Your task to perform on an android device: toggle airplane mode Image 0: 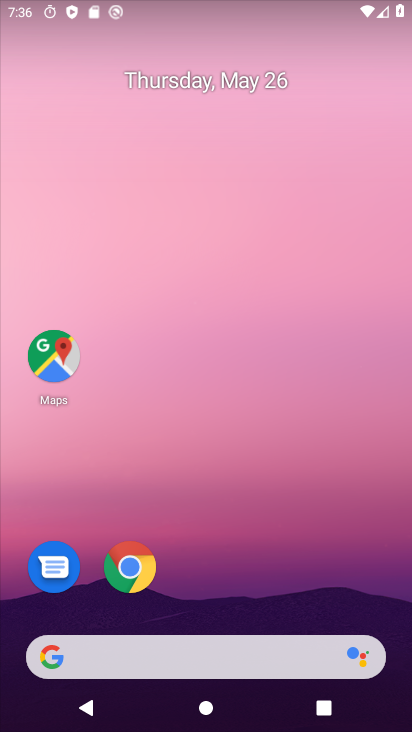
Step 0: press home button
Your task to perform on an android device: toggle airplane mode Image 1: 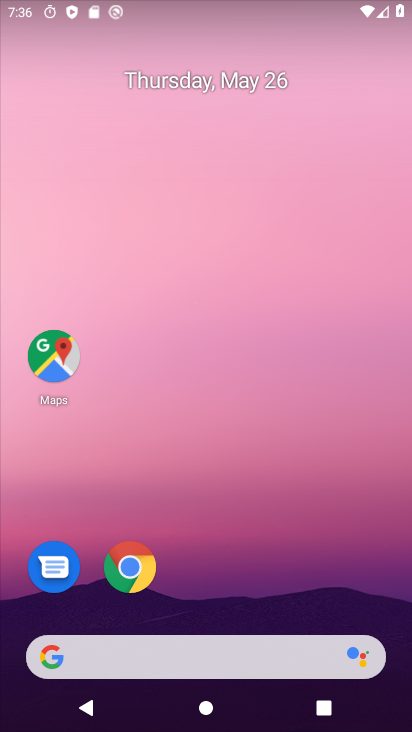
Step 1: drag from (139, 658) to (352, 72)
Your task to perform on an android device: toggle airplane mode Image 2: 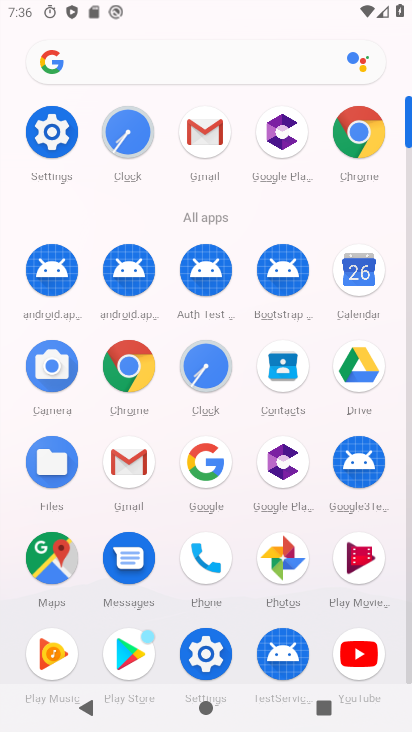
Step 2: click (39, 130)
Your task to perform on an android device: toggle airplane mode Image 3: 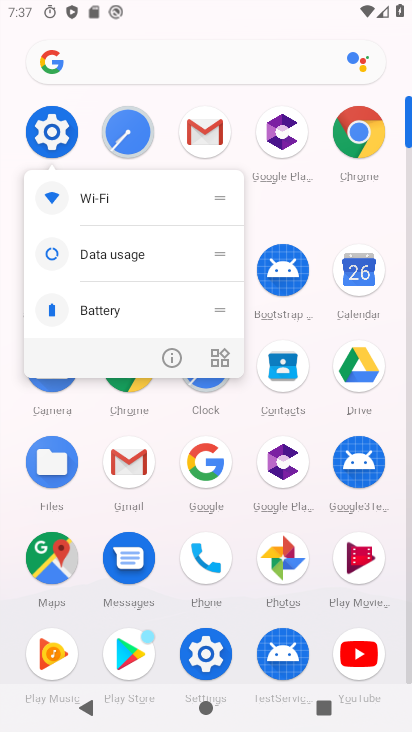
Step 3: click (51, 128)
Your task to perform on an android device: toggle airplane mode Image 4: 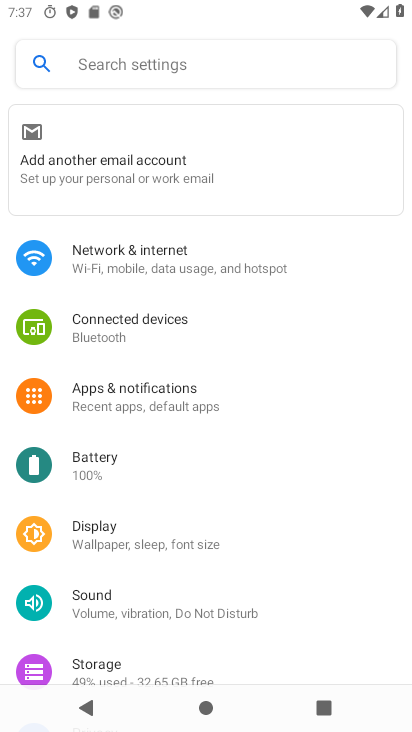
Step 4: click (187, 255)
Your task to perform on an android device: toggle airplane mode Image 5: 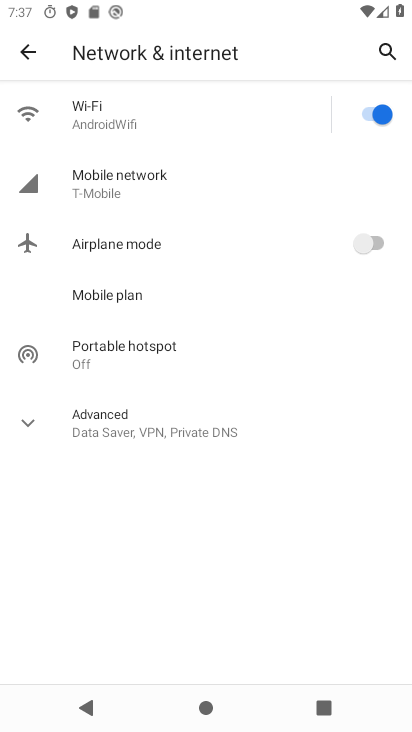
Step 5: click (377, 243)
Your task to perform on an android device: toggle airplane mode Image 6: 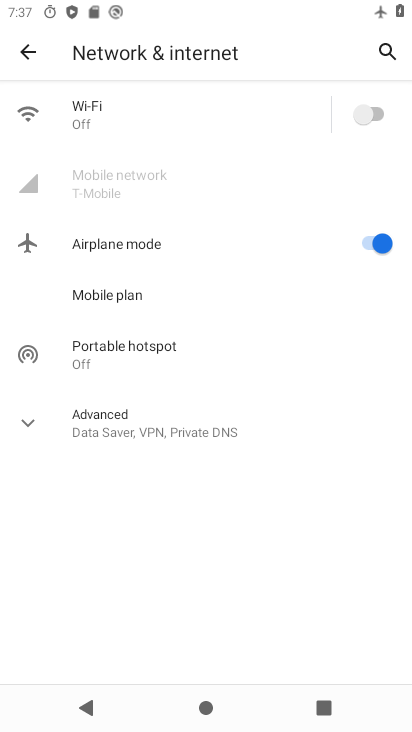
Step 6: task complete